Your task to perform on an android device: Open Google Image 0: 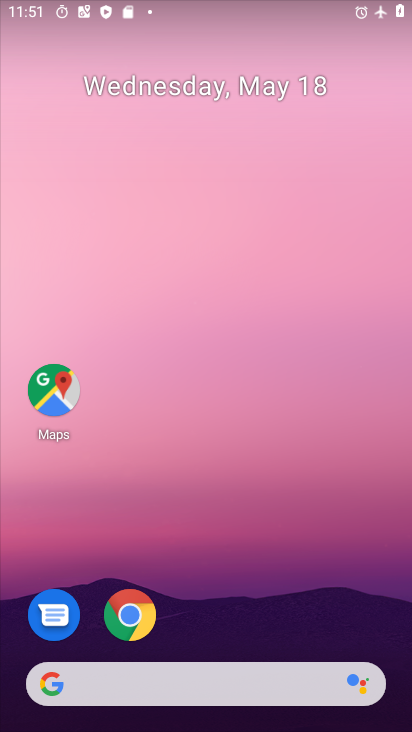
Step 0: press home button
Your task to perform on an android device: Open Google Image 1: 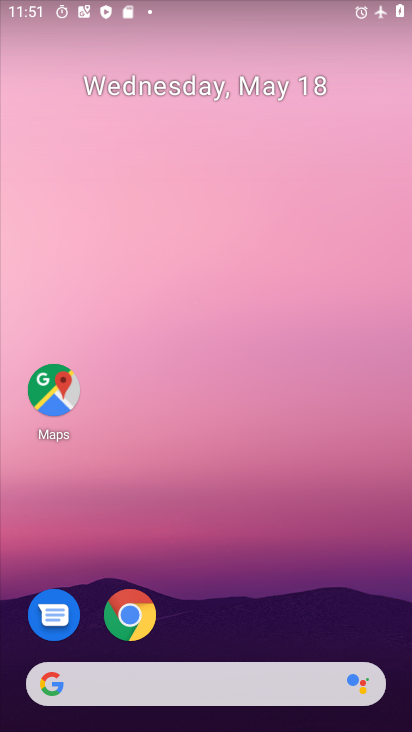
Step 1: click (52, 685)
Your task to perform on an android device: Open Google Image 2: 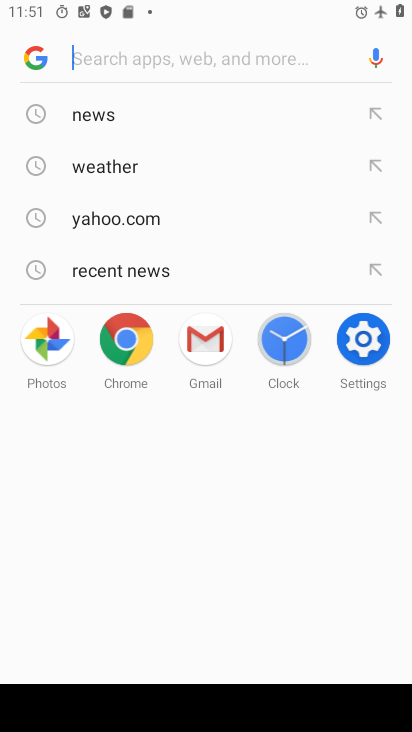
Step 2: click (44, 67)
Your task to perform on an android device: Open Google Image 3: 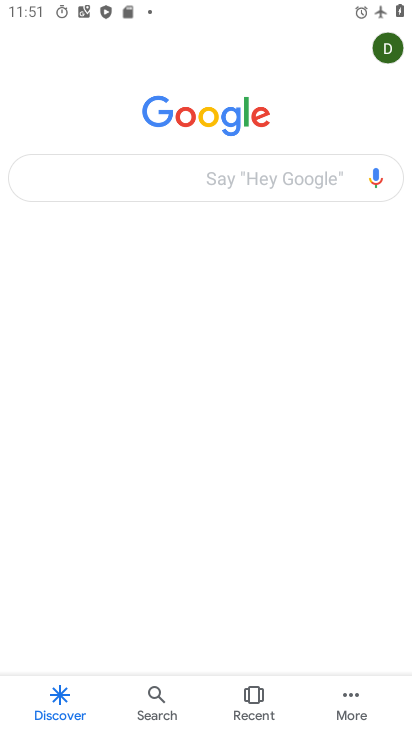
Step 3: task complete